Your task to perform on an android device: Open Google Image 0: 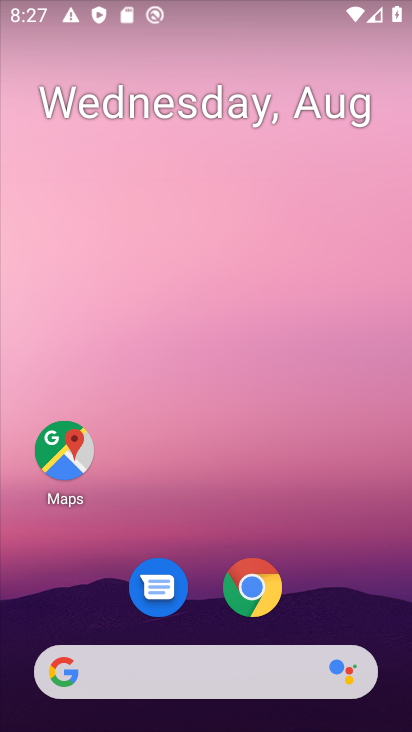
Step 0: drag from (247, 684) to (199, 119)
Your task to perform on an android device: Open Google Image 1: 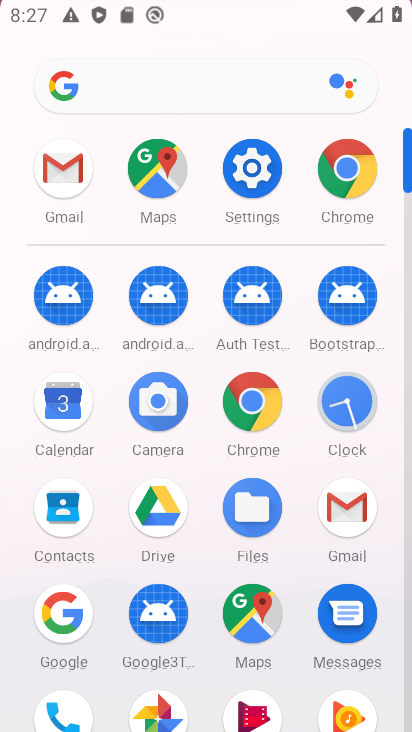
Step 1: drag from (230, 471) to (263, 86)
Your task to perform on an android device: Open Google Image 2: 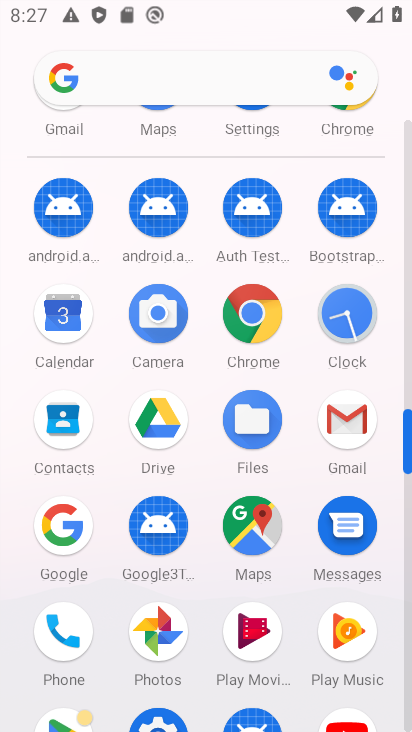
Step 2: click (65, 519)
Your task to perform on an android device: Open Google Image 3: 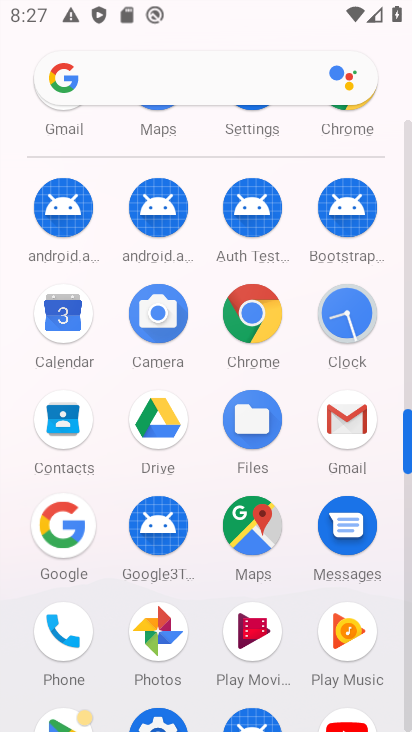
Step 3: click (65, 519)
Your task to perform on an android device: Open Google Image 4: 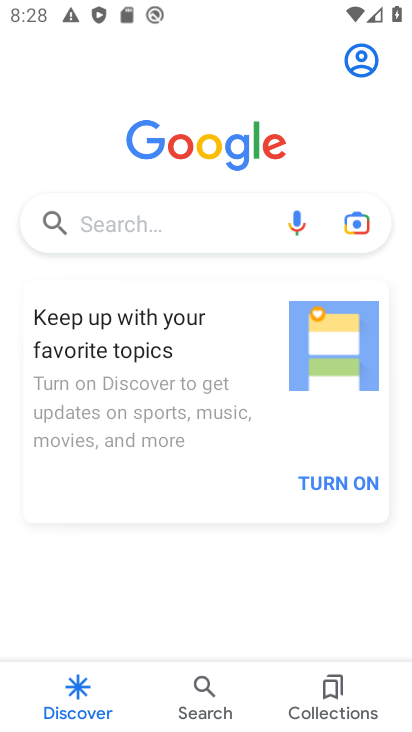
Step 4: task complete